Your task to perform on an android device: Open Google Maps Image 0: 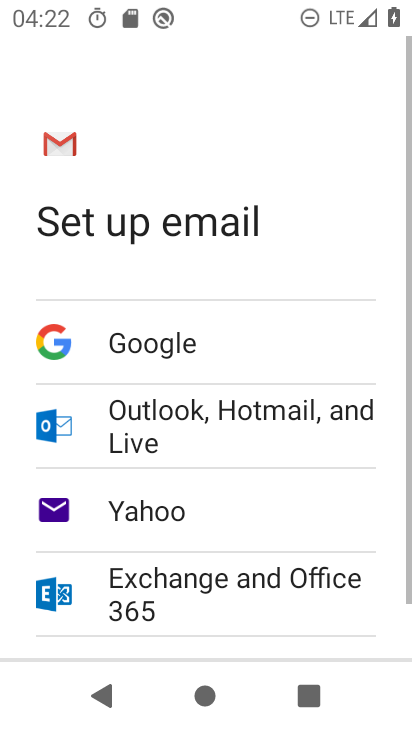
Step 0: press back button
Your task to perform on an android device: Open Google Maps Image 1: 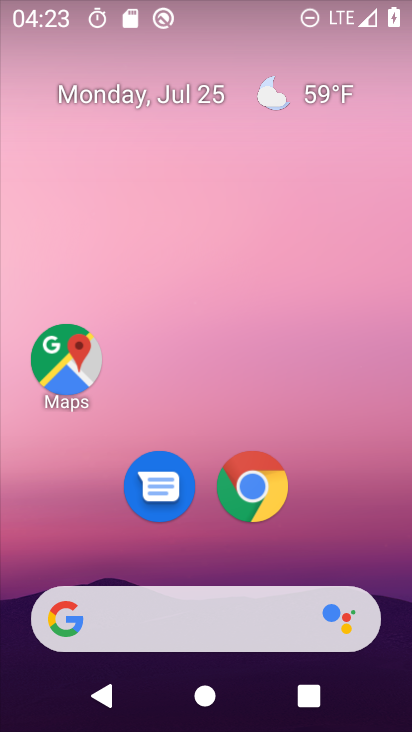
Step 1: click (49, 362)
Your task to perform on an android device: Open Google Maps Image 2: 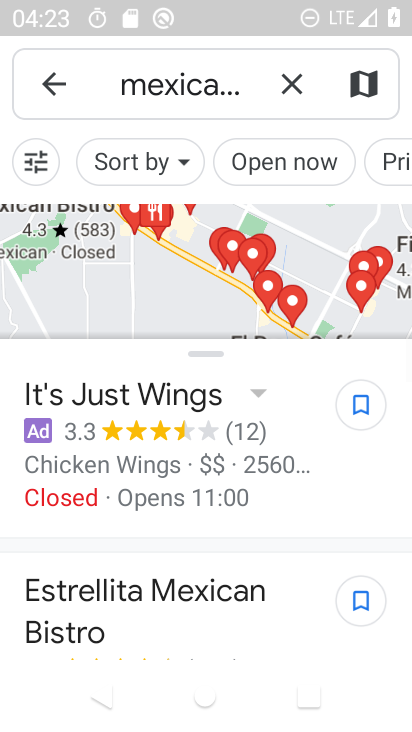
Step 2: task complete